Your task to perform on an android device: Search for sushi restaurants on Maps Image 0: 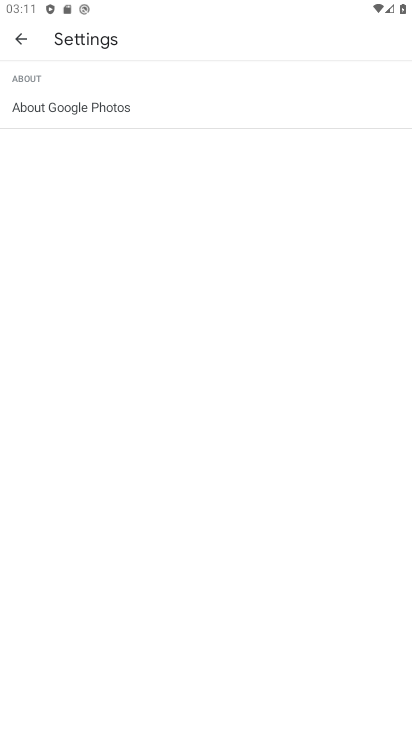
Step 0: click (9, 42)
Your task to perform on an android device: Search for sushi restaurants on Maps Image 1: 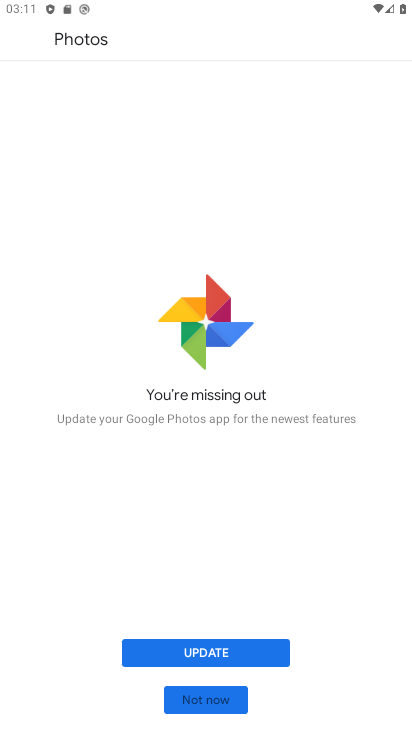
Step 1: click (201, 707)
Your task to perform on an android device: Search for sushi restaurants on Maps Image 2: 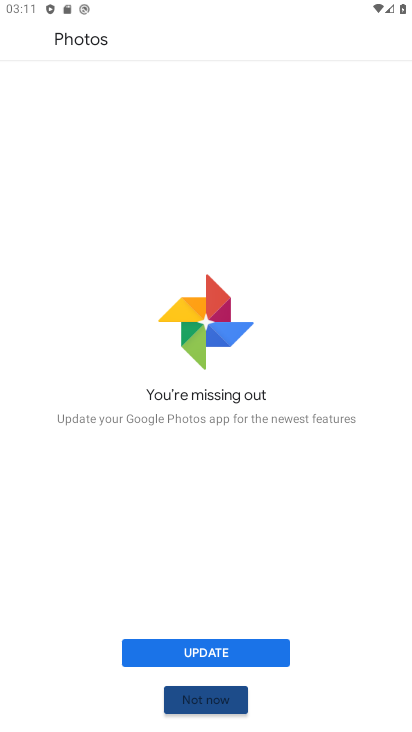
Step 2: click (206, 703)
Your task to perform on an android device: Search for sushi restaurants on Maps Image 3: 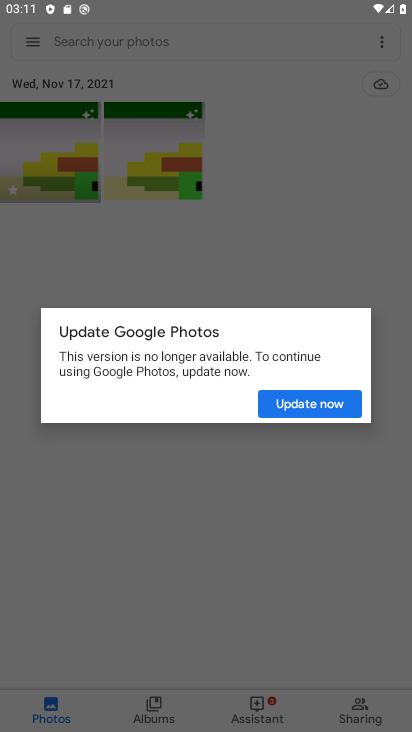
Step 3: click (320, 407)
Your task to perform on an android device: Search for sushi restaurants on Maps Image 4: 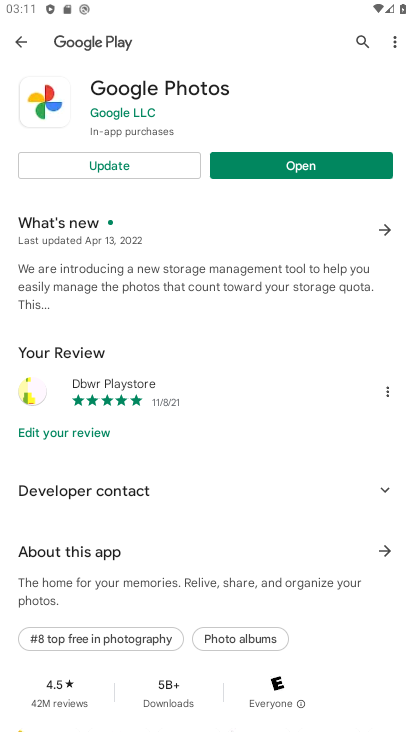
Step 4: click (294, 158)
Your task to perform on an android device: Search for sushi restaurants on Maps Image 5: 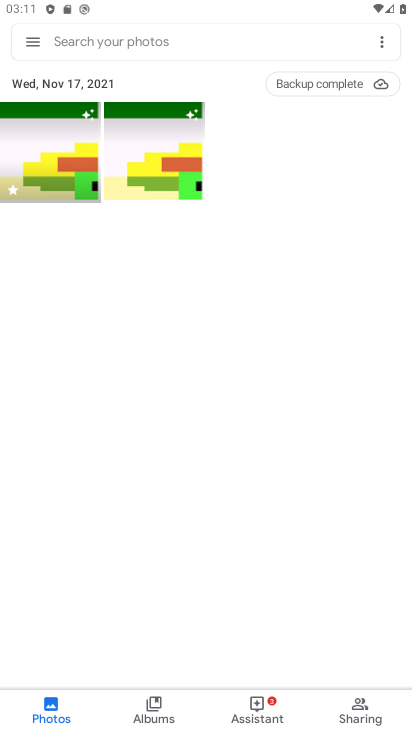
Step 5: press home button
Your task to perform on an android device: Search for sushi restaurants on Maps Image 6: 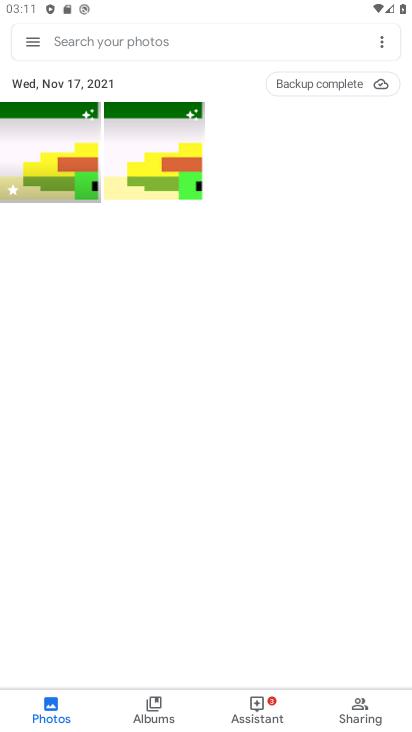
Step 6: press home button
Your task to perform on an android device: Search for sushi restaurants on Maps Image 7: 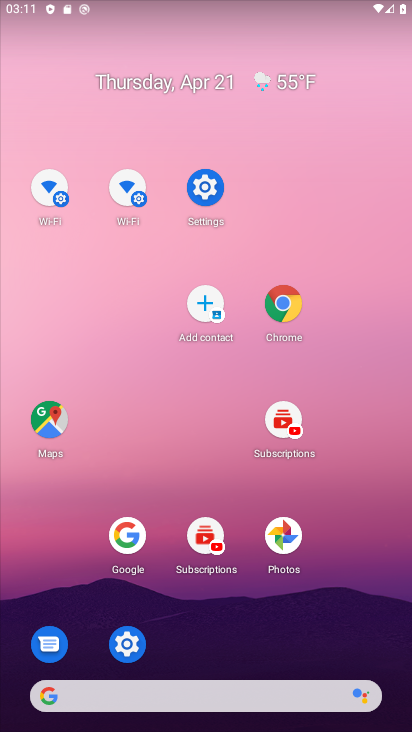
Step 7: click (31, 425)
Your task to perform on an android device: Search for sushi restaurants on Maps Image 8: 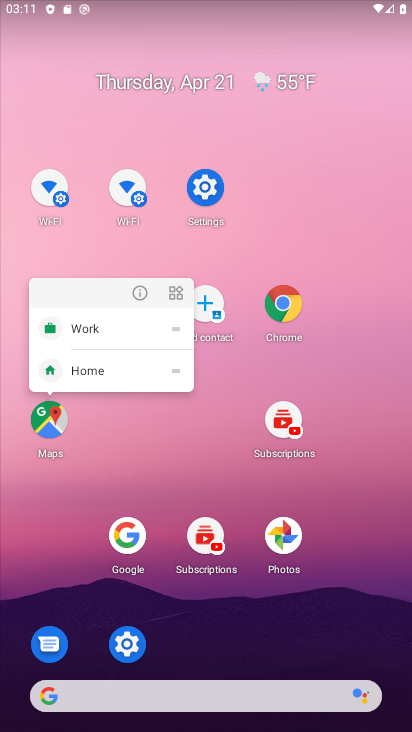
Step 8: click (46, 417)
Your task to perform on an android device: Search for sushi restaurants on Maps Image 9: 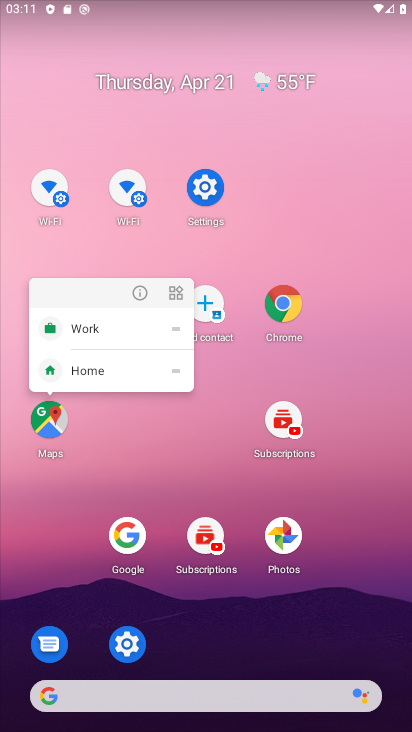
Step 9: click (46, 416)
Your task to perform on an android device: Search for sushi restaurants on Maps Image 10: 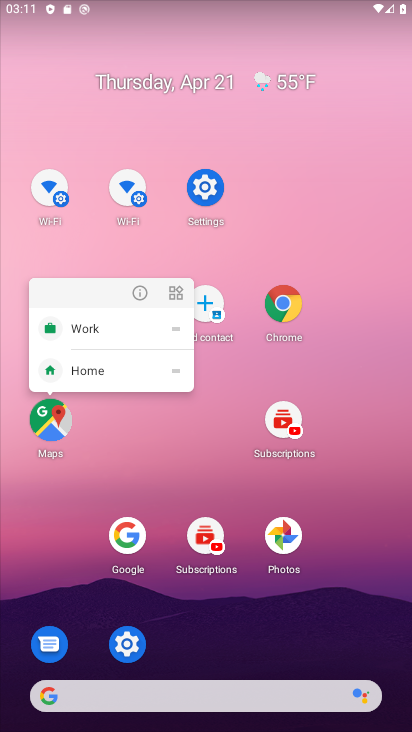
Step 10: click (47, 416)
Your task to perform on an android device: Search for sushi restaurants on Maps Image 11: 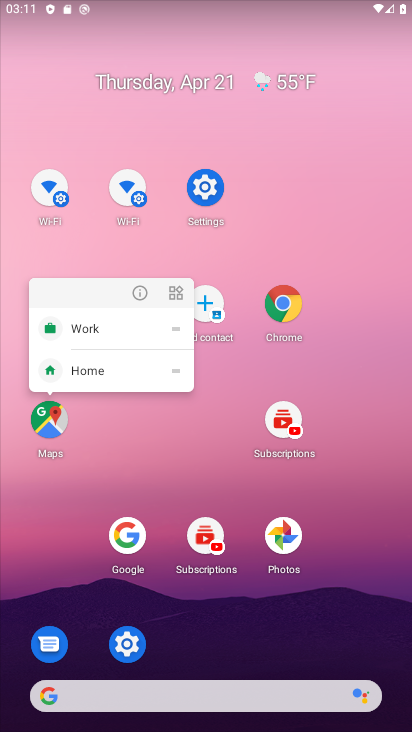
Step 11: click (52, 416)
Your task to perform on an android device: Search for sushi restaurants on Maps Image 12: 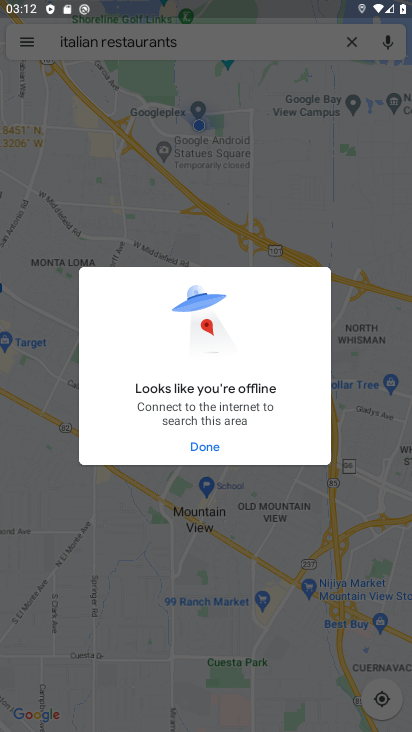
Step 12: click (73, 31)
Your task to perform on an android device: Search for sushi restaurants on Maps Image 13: 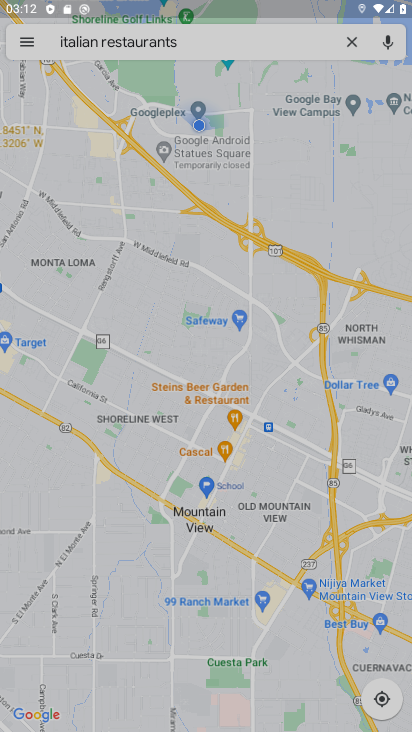
Step 13: drag from (45, 46) to (80, 54)
Your task to perform on an android device: Search for sushi restaurants on Maps Image 14: 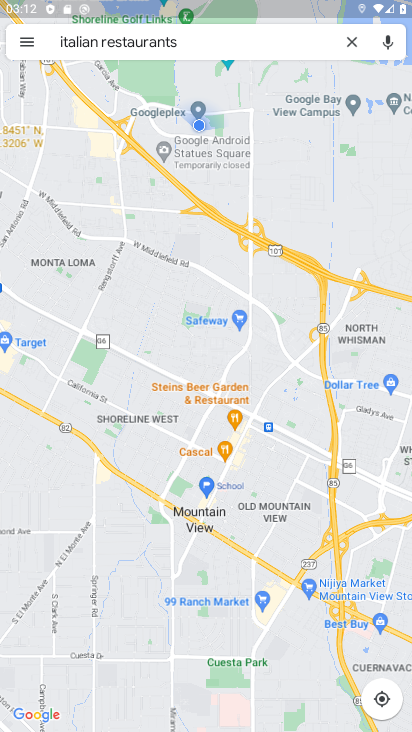
Step 14: click (349, 41)
Your task to perform on an android device: Search for sushi restaurants on Maps Image 15: 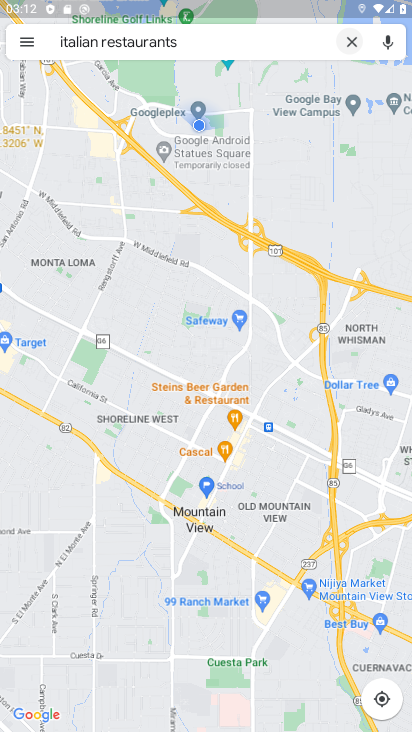
Step 15: click (349, 41)
Your task to perform on an android device: Search for sushi restaurants on Maps Image 16: 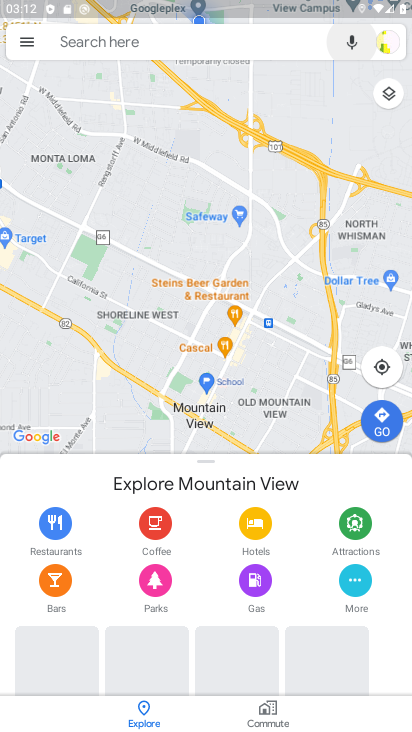
Step 16: click (69, 39)
Your task to perform on an android device: Search for sushi restaurants on Maps Image 17: 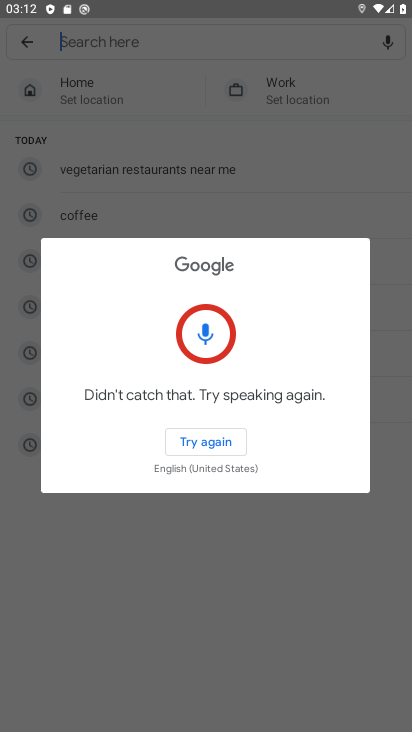
Step 17: type "sushi restaurants"
Your task to perform on an android device: Search for sushi restaurants on Maps Image 18: 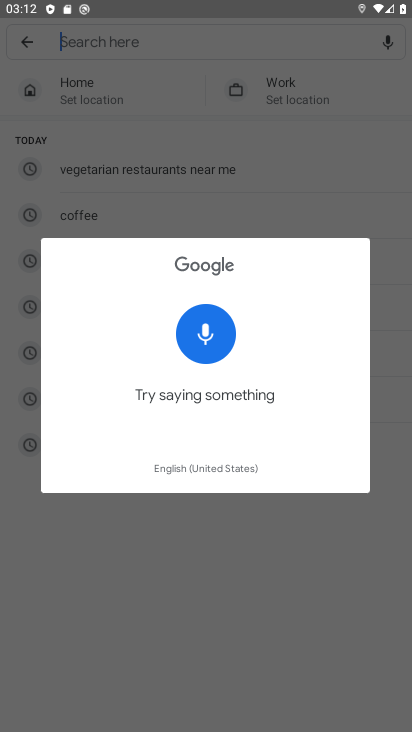
Step 18: task complete